Your task to perform on an android device: Open calendar and show me the second week of next month Image 0: 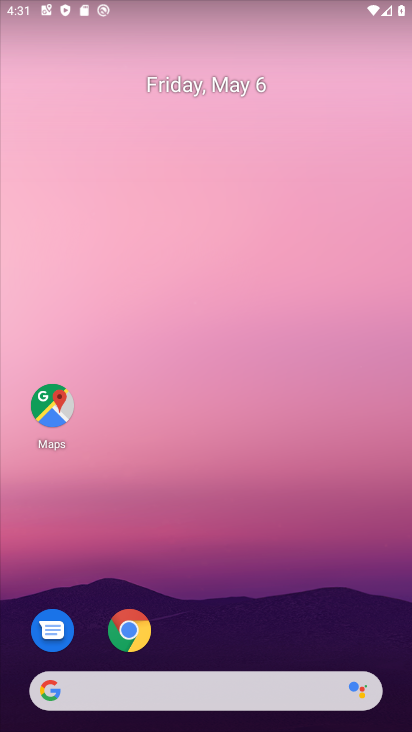
Step 0: drag from (230, 659) to (234, 45)
Your task to perform on an android device: Open calendar and show me the second week of next month Image 1: 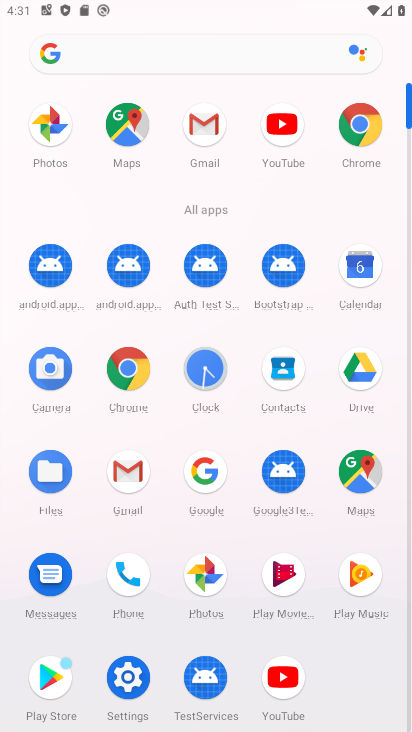
Step 1: click (365, 262)
Your task to perform on an android device: Open calendar and show me the second week of next month Image 2: 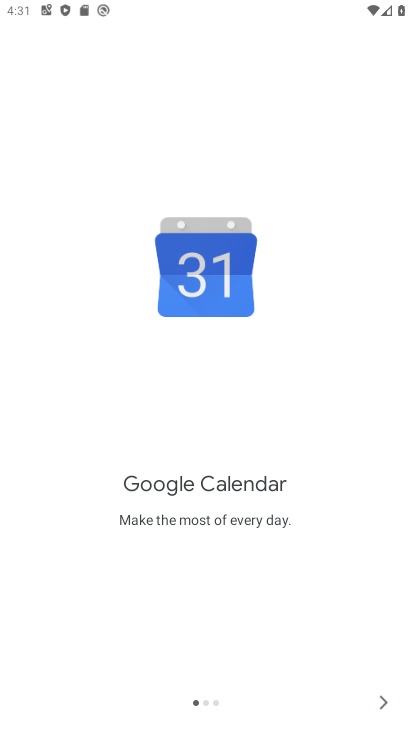
Step 2: click (374, 693)
Your task to perform on an android device: Open calendar and show me the second week of next month Image 3: 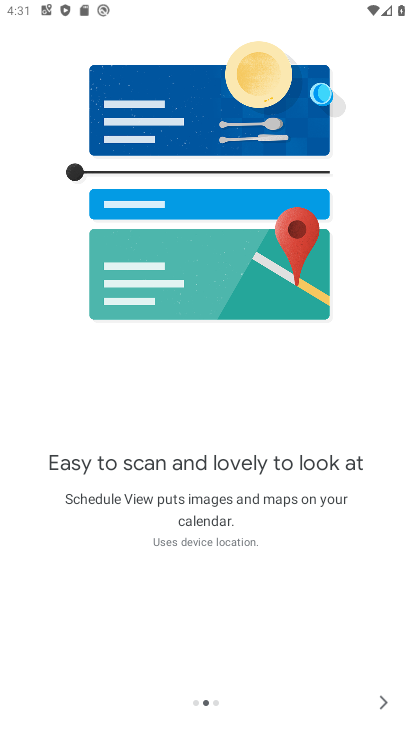
Step 3: click (380, 703)
Your task to perform on an android device: Open calendar and show me the second week of next month Image 4: 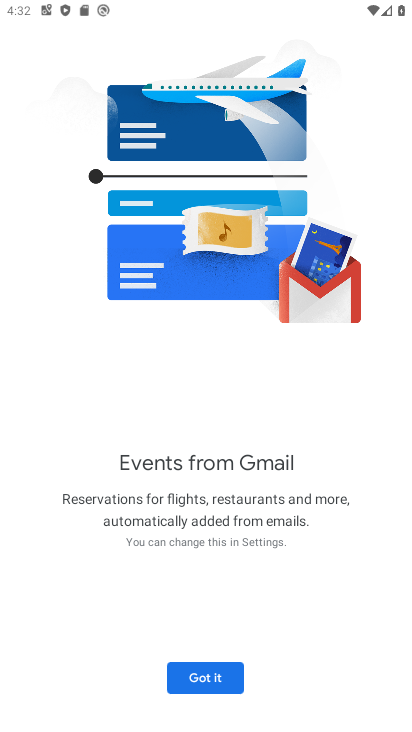
Step 4: click (191, 676)
Your task to perform on an android device: Open calendar and show me the second week of next month Image 5: 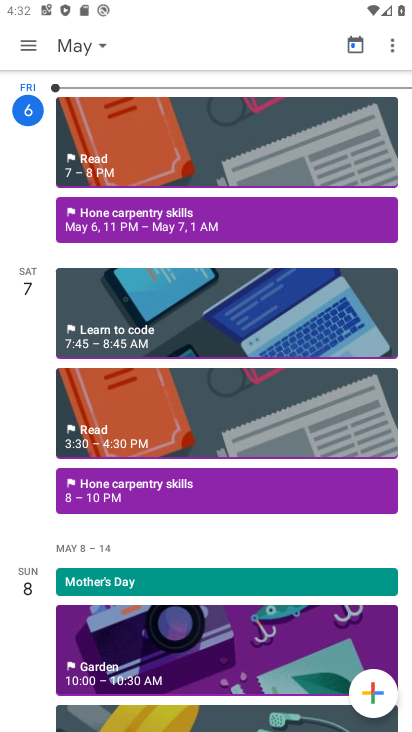
Step 5: click (81, 40)
Your task to perform on an android device: Open calendar and show me the second week of next month Image 6: 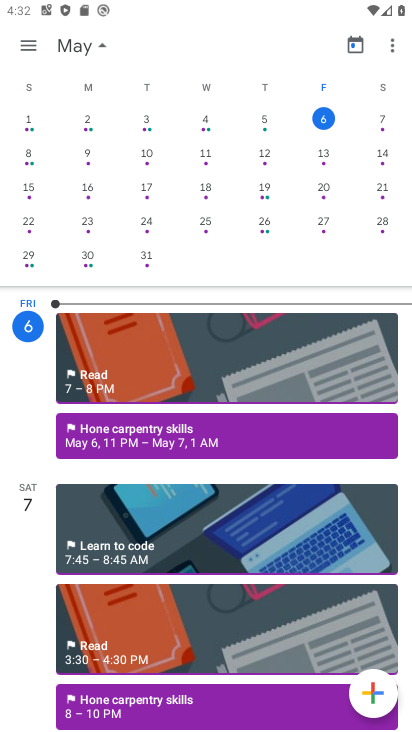
Step 6: drag from (394, 188) to (14, 252)
Your task to perform on an android device: Open calendar and show me the second week of next month Image 7: 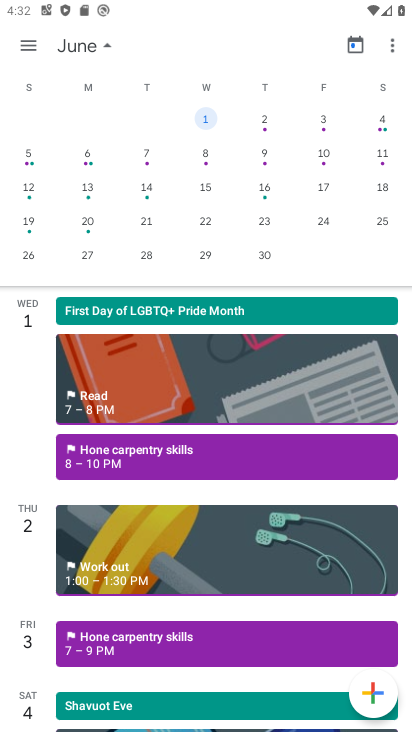
Step 7: click (33, 158)
Your task to perform on an android device: Open calendar and show me the second week of next month Image 8: 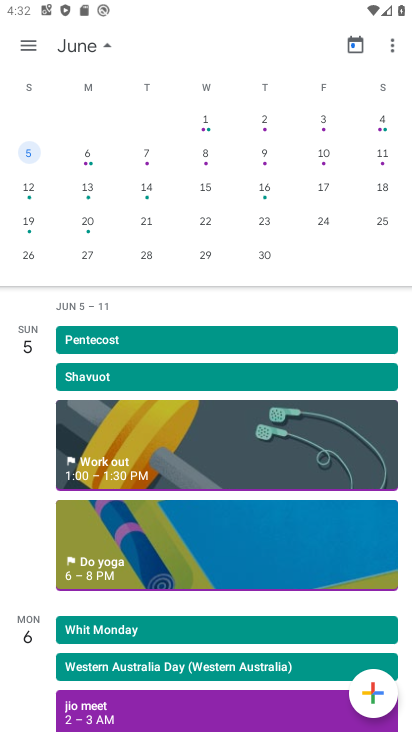
Step 8: task complete